Your task to perform on an android device: move a message to another label in the gmail app Image 0: 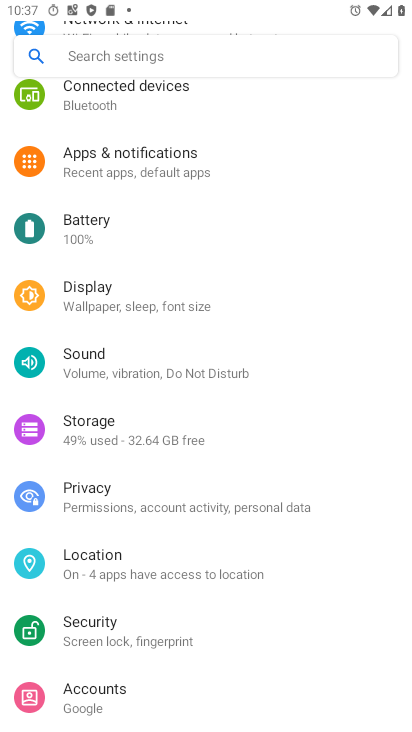
Step 0: press home button
Your task to perform on an android device: move a message to another label in the gmail app Image 1: 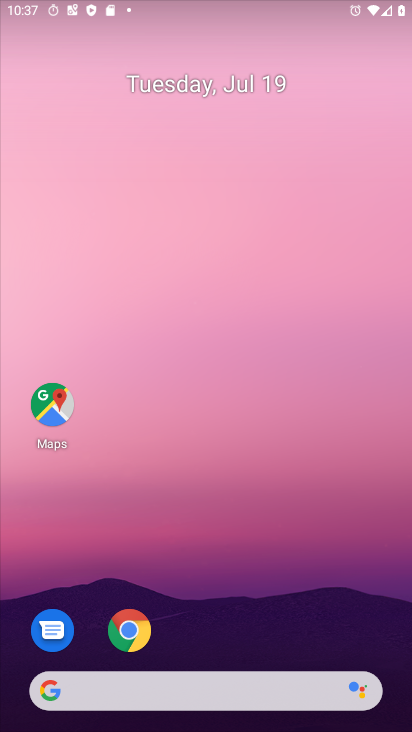
Step 1: drag from (251, 534) to (188, 134)
Your task to perform on an android device: move a message to another label in the gmail app Image 2: 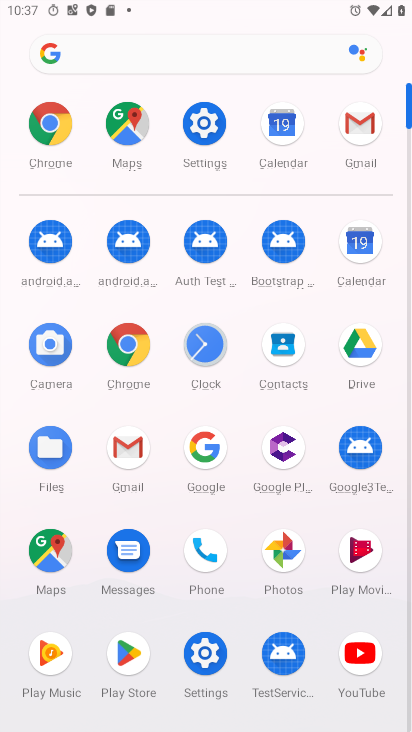
Step 2: click (348, 117)
Your task to perform on an android device: move a message to another label in the gmail app Image 3: 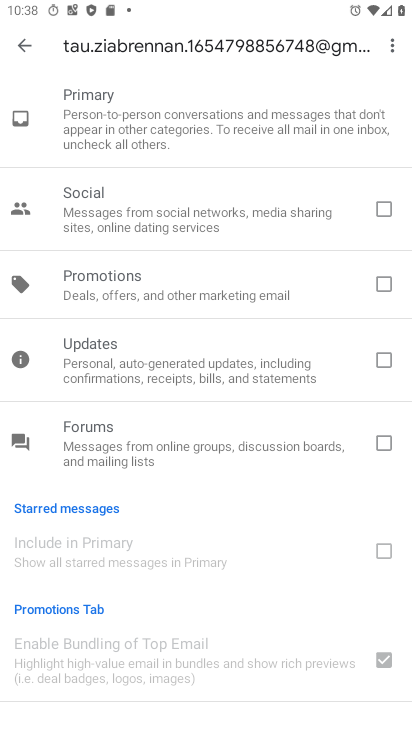
Step 3: click (19, 51)
Your task to perform on an android device: move a message to another label in the gmail app Image 4: 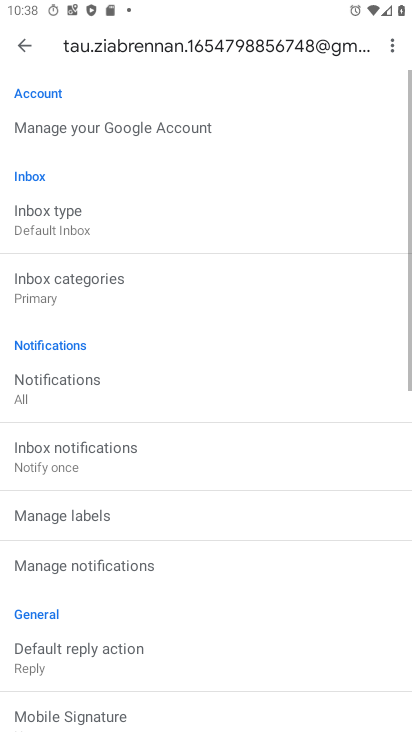
Step 4: click (27, 51)
Your task to perform on an android device: move a message to another label in the gmail app Image 5: 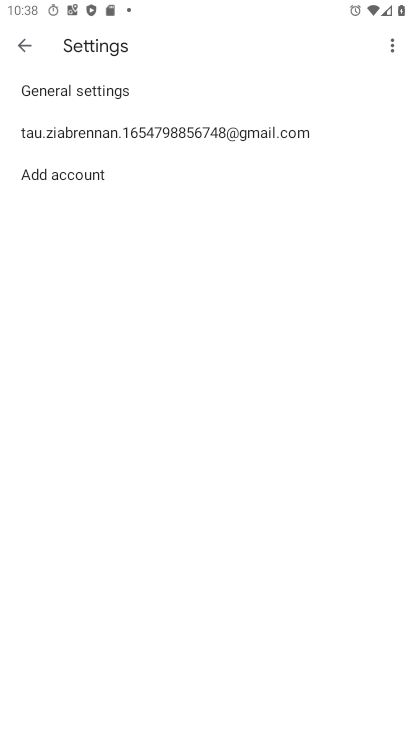
Step 5: click (20, 46)
Your task to perform on an android device: move a message to another label in the gmail app Image 6: 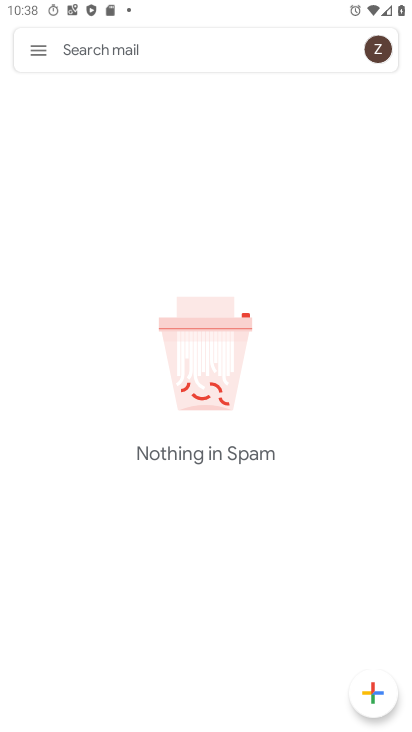
Step 6: click (32, 50)
Your task to perform on an android device: move a message to another label in the gmail app Image 7: 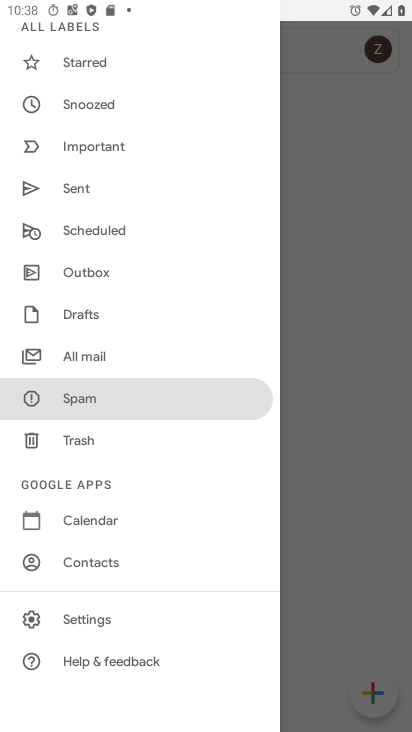
Step 7: click (86, 359)
Your task to perform on an android device: move a message to another label in the gmail app Image 8: 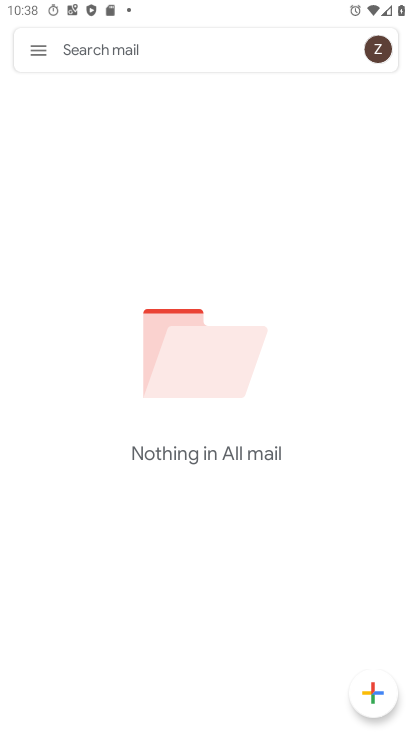
Step 8: task complete